Your task to perform on an android device: clear history in the chrome app Image 0: 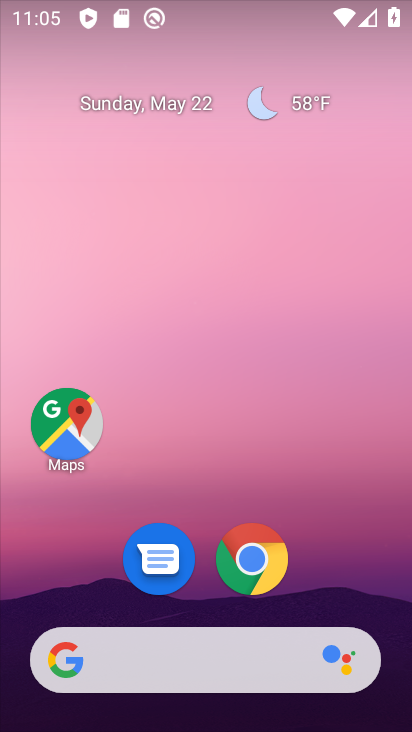
Step 0: click (255, 573)
Your task to perform on an android device: clear history in the chrome app Image 1: 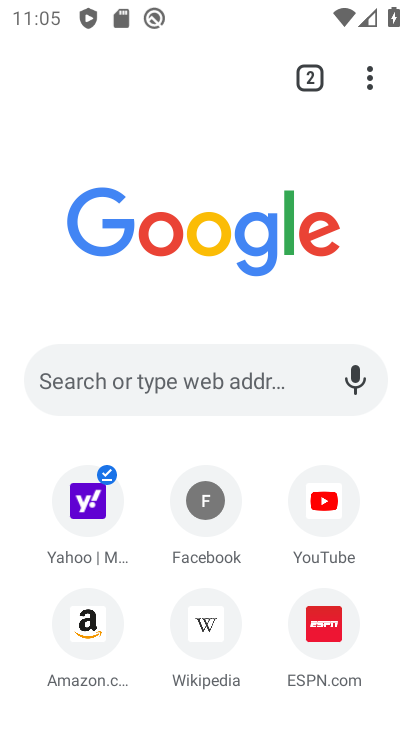
Step 1: drag from (371, 89) to (168, 429)
Your task to perform on an android device: clear history in the chrome app Image 2: 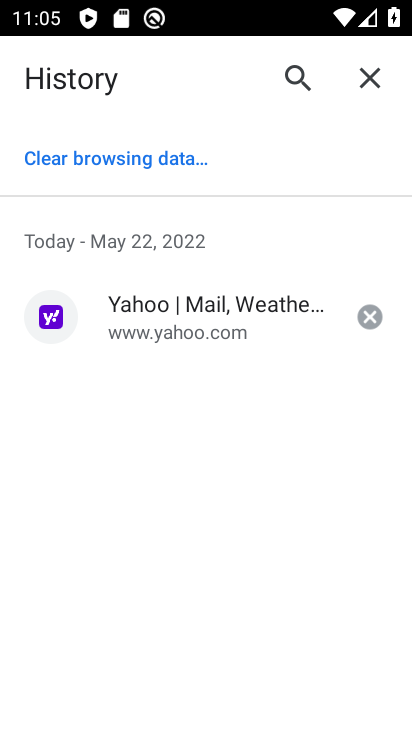
Step 2: click (103, 169)
Your task to perform on an android device: clear history in the chrome app Image 3: 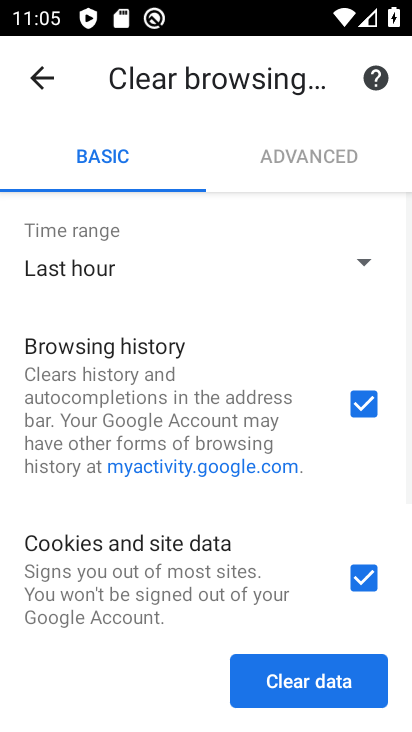
Step 3: click (300, 690)
Your task to perform on an android device: clear history in the chrome app Image 4: 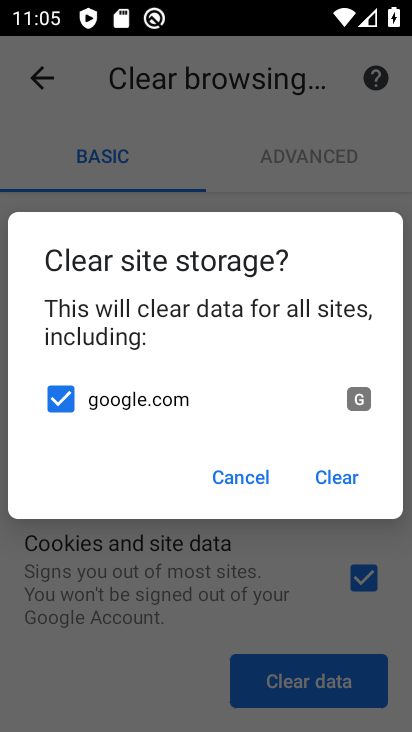
Step 4: click (328, 486)
Your task to perform on an android device: clear history in the chrome app Image 5: 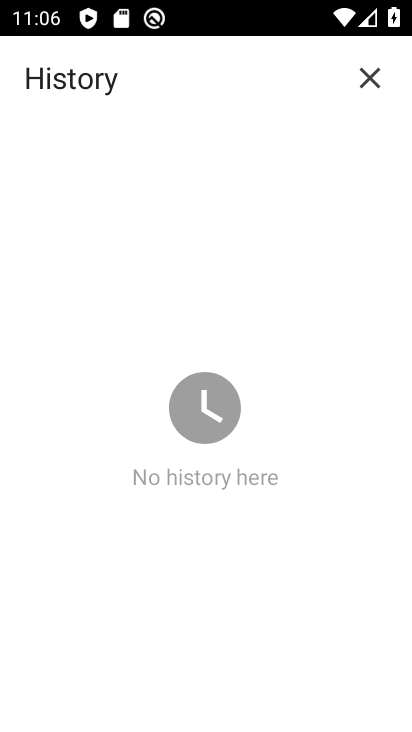
Step 5: task complete